Your task to perform on an android device: check google app version Image 0: 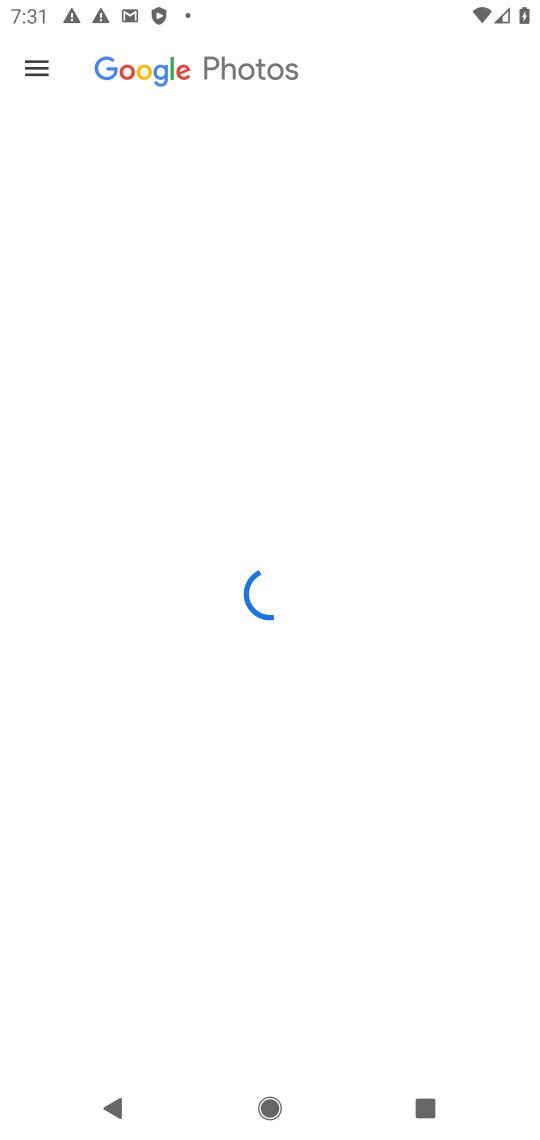
Step 0: press home button
Your task to perform on an android device: check google app version Image 1: 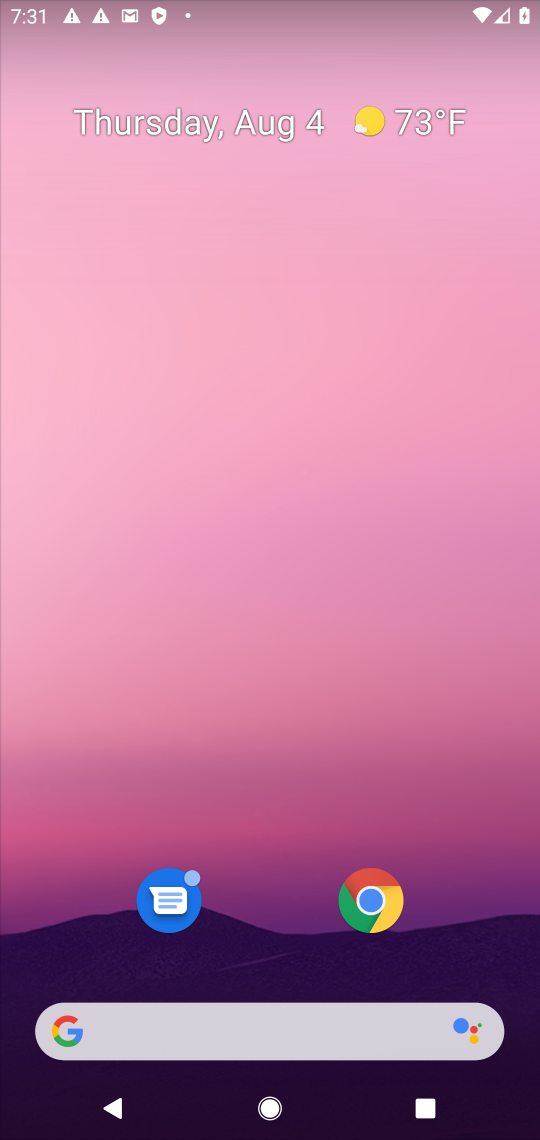
Step 1: drag from (182, 1019) to (365, 127)
Your task to perform on an android device: check google app version Image 2: 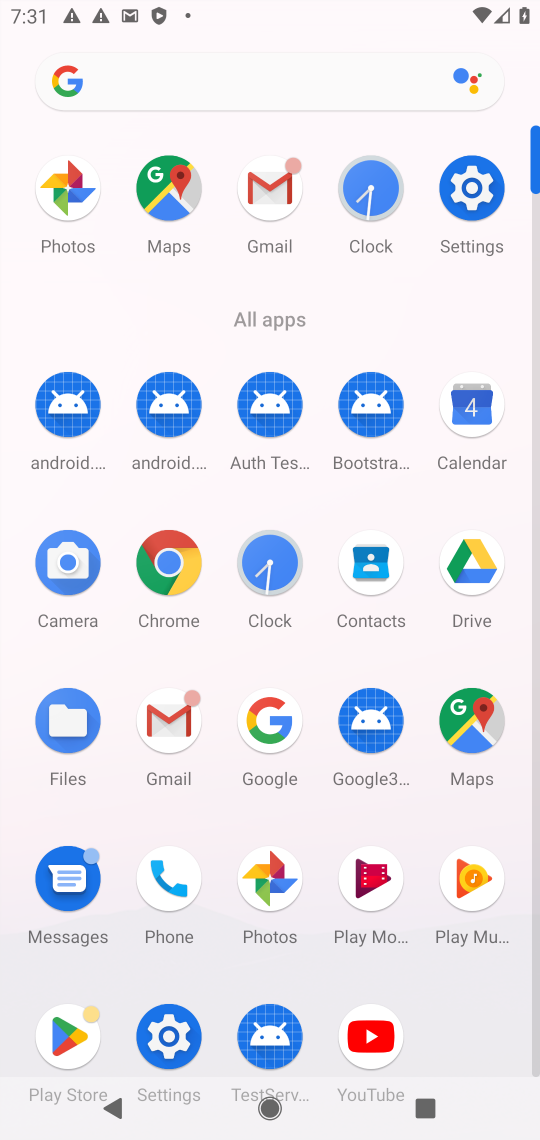
Step 2: click (280, 714)
Your task to perform on an android device: check google app version Image 3: 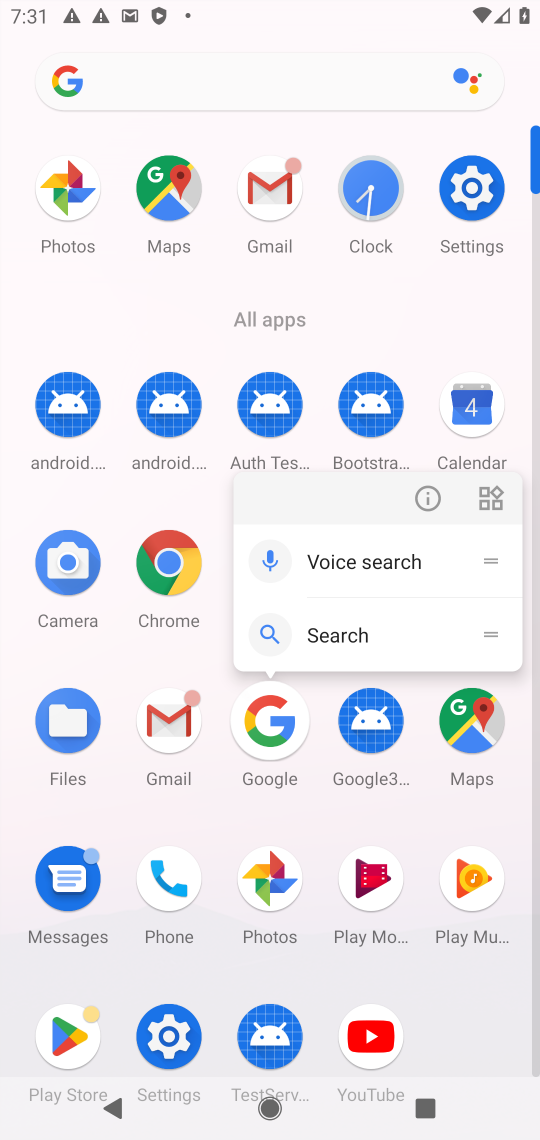
Step 3: click (426, 491)
Your task to perform on an android device: check google app version Image 4: 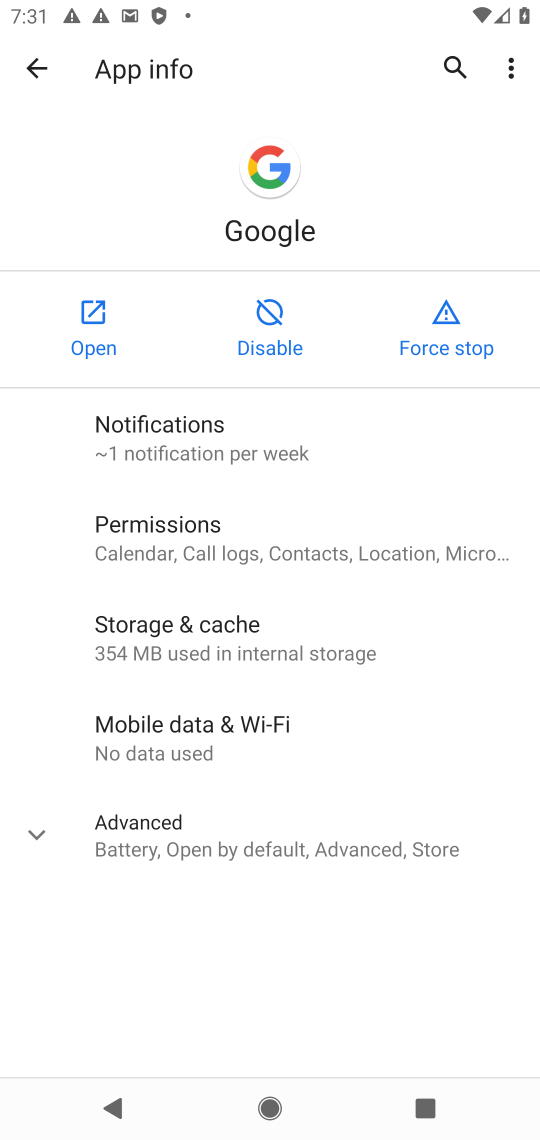
Step 4: click (139, 833)
Your task to perform on an android device: check google app version Image 5: 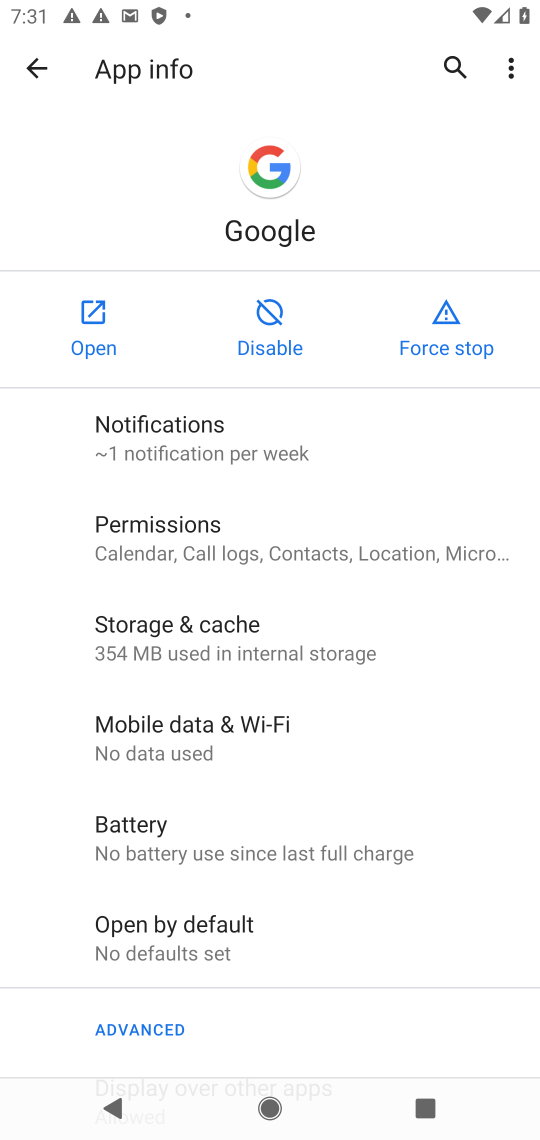
Step 5: task complete